Your task to perform on an android device: empty trash in google photos Image 0: 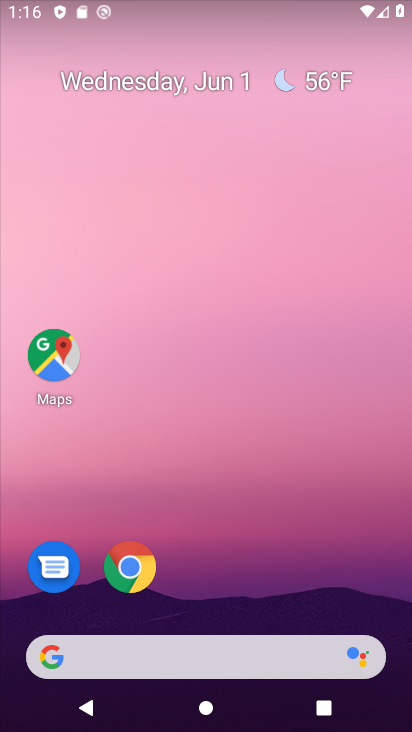
Step 0: drag from (224, 644) to (248, 28)
Your task to perform on an android device: empty trash in google photos Image 1: 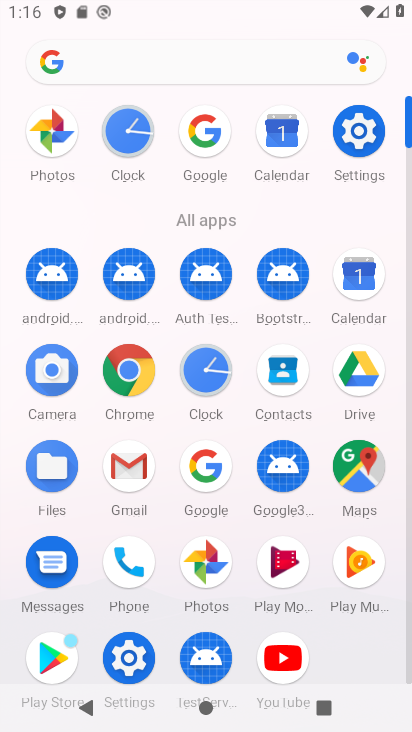
Step 1: click (199, 557)
Your task to perform on an android device: empty trash in google photos Image 2: 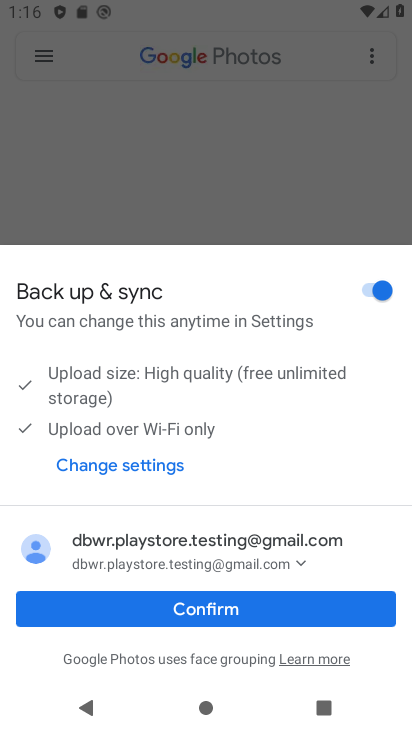
Step 2: click (38, 57)
Your task to perform on an android device: empty trash in google photos Image 3: 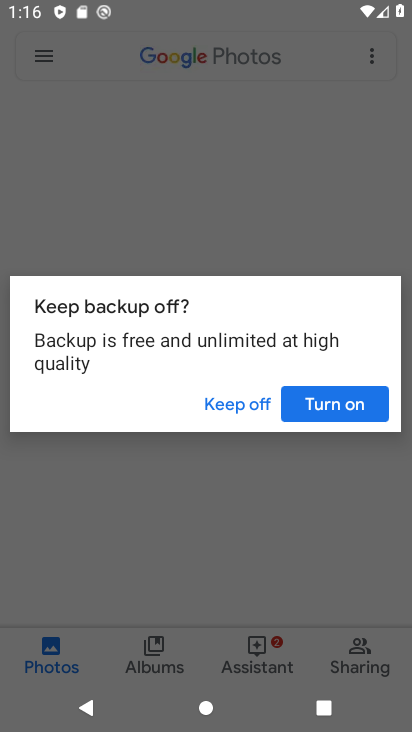
Step 3: click (246, 399)
Your task to perform on an android device: empty trash in google photos Image 4: 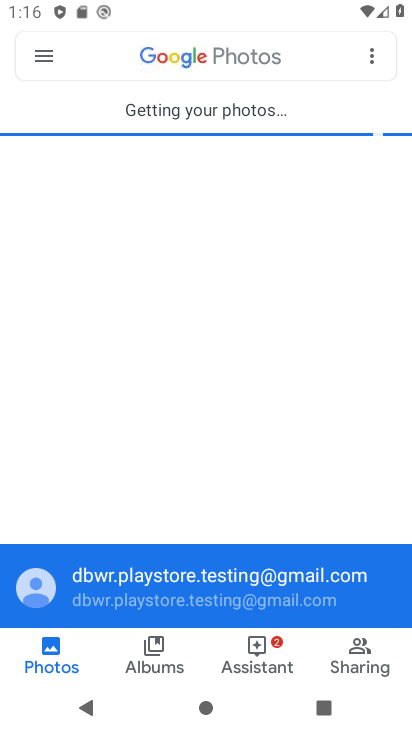
Step 4: click (40, 57)
Your task to perform on an android device: empty trash in google photos Image 5: 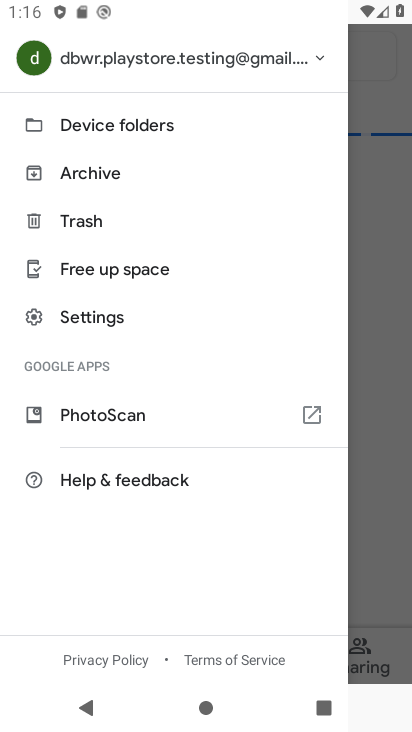
Step 5: click (56, 219)
Your task to perform on an android device: empty trash in google photos Image 6: 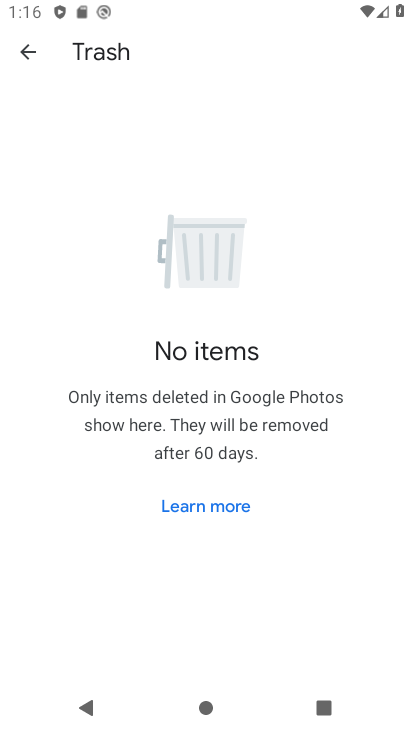
Step 6: task complete